Your task to perform on an android device: Open calendar and show me the fourth week of next month Image 0: 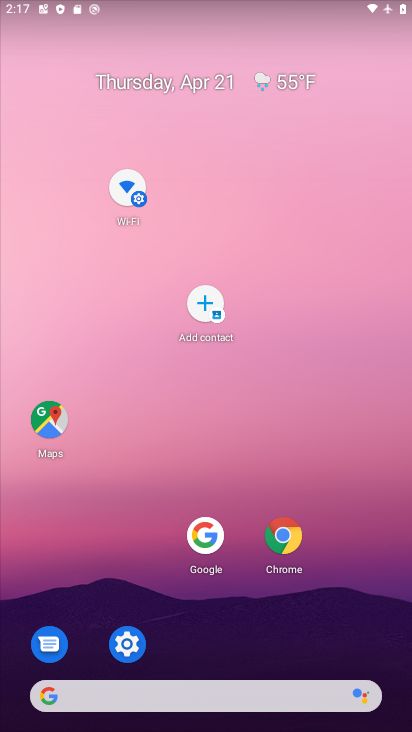
Step 0: drag from (285, 547) to (265, 204)
Your task to perform on an android device: Open calendar and show me the fourth week of next month Image 1: 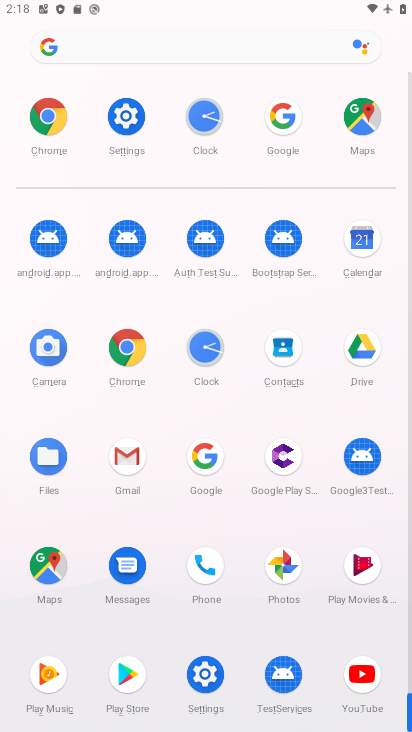
Step 1: click (367, 235)
Your task to perform on an android device: Open calendar and show me the fourth week of next month Image 2: 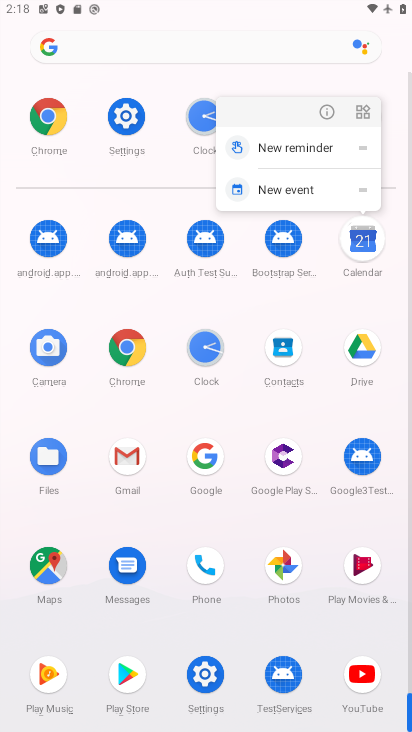
Step 2: click (367, 235)
Your task to perform on an android device: Open calendar and show me the fourth week of next month Image 3: 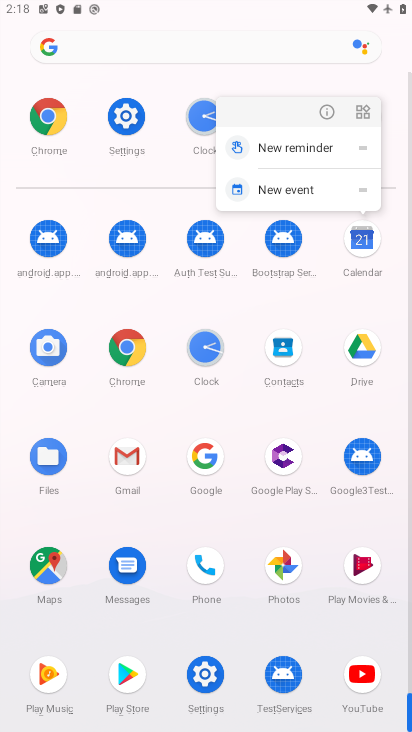
Step 3: click (367, 235)
Your task to perform on an android device: Open calendar and show me the fourth week of next month Image 4: 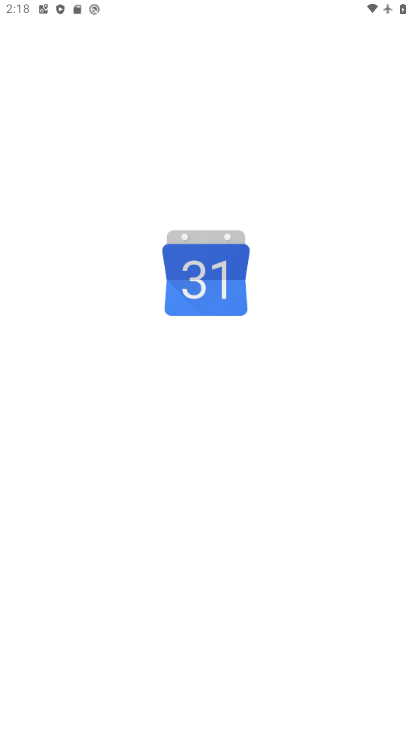
Step 4: click (367, 234)
Your task to perform on an android device: Open calendar and show me the fourth week of next month Image 5: 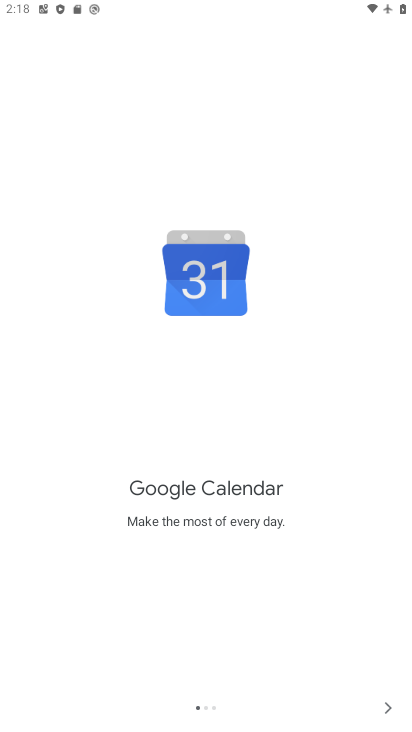
Step 5: click (389, 710)
Your task to perform on an android device: Open calendar and show me the fourth week of next month Image 6: 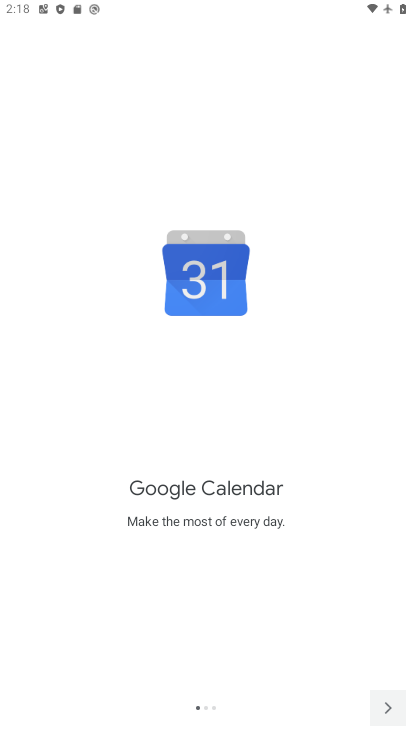
Step 6: click (390, 710)
Your task to perform on an android device: Open calendar and show me the fourth week of next month Image 7: 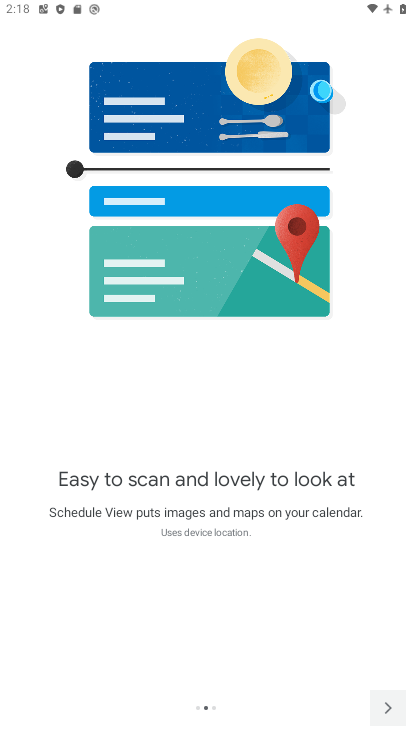
Step 7: click (390, 710)
Your task to perform on an android device: Open calendar and show me the fourth week of next month Image 8: 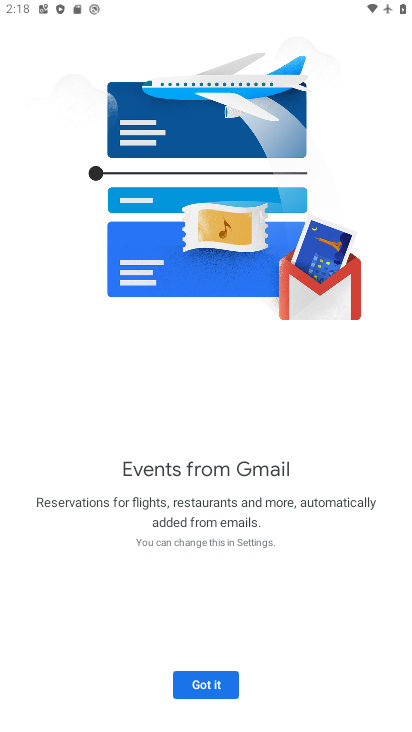
Step 8: click (390, 710)
Your task to perform on an android device: Open calendar and show me the fourth week of next month Image 9: 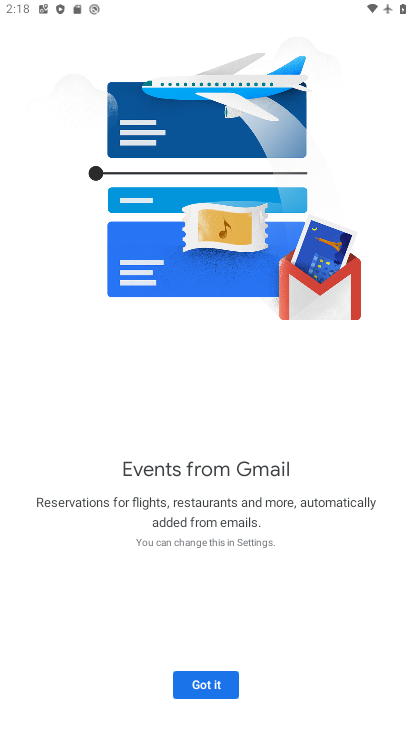
Step 9: click (215, 683)
Your task to perform on an android device: Open calendar and show me the fourth week of next month Image 10: 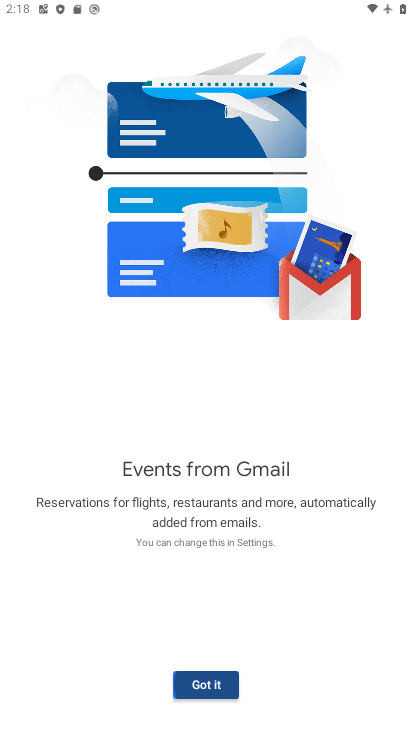
Step 10: click (214, 684)
Your task to perform on an android device: Open calendar and show me the fourth week of next month Image 11: 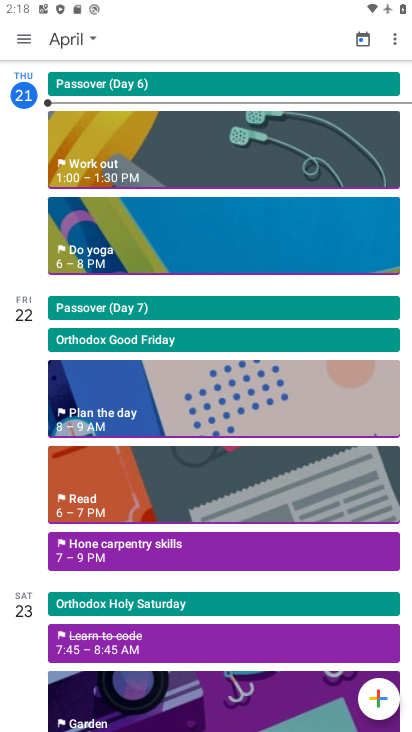
Step 11: click (90, 36)
Your task to perform on an android device: Open calendar and show me the fourth week of next month Image 12: 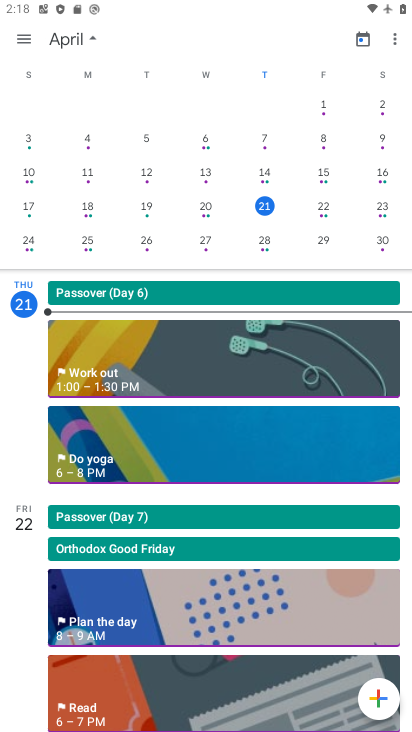
Step 12: click (25, 164)
Your task to perform on an android device: Open calendar and show me the fourth week of next month Image 13: 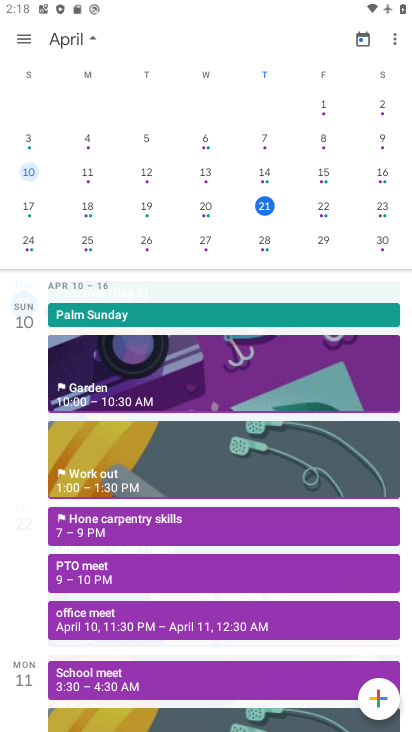
Step 13: drag from (82, 203) to (23, 191)
Your task to perform on an android device: Open calendar and show me the fourth week of next month Image 14: 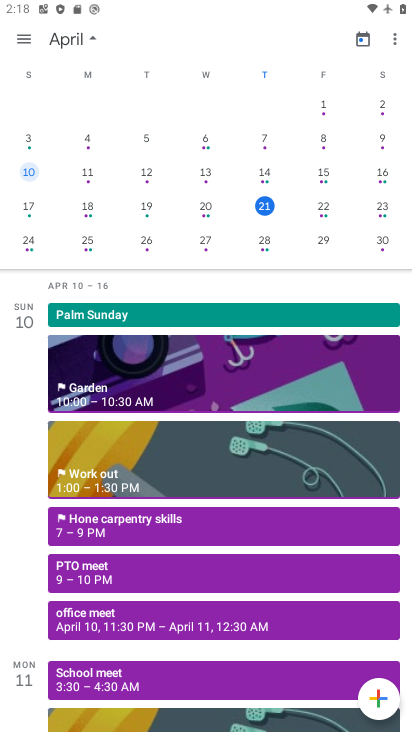
Step 14: drag from (275, 198) to (106, 182)
Your task to perform on an android device: Open calendar and show me the fourth week of next month Image 15: 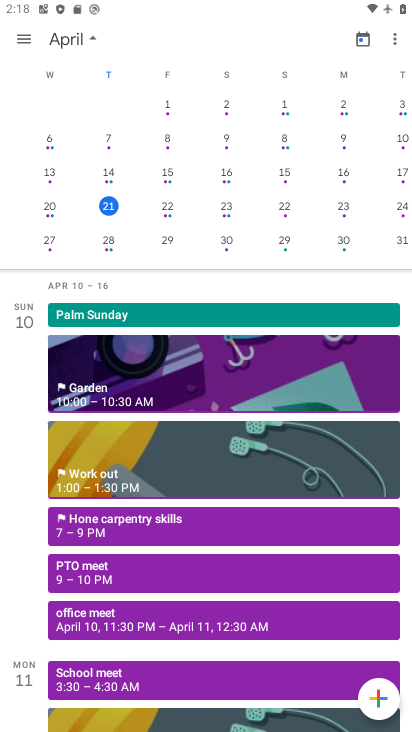
Step 15: drag from (186, 177) to (0, 152)
Your task to perform on an android device: Open calendar and show me the fourth week of next month Image 16: 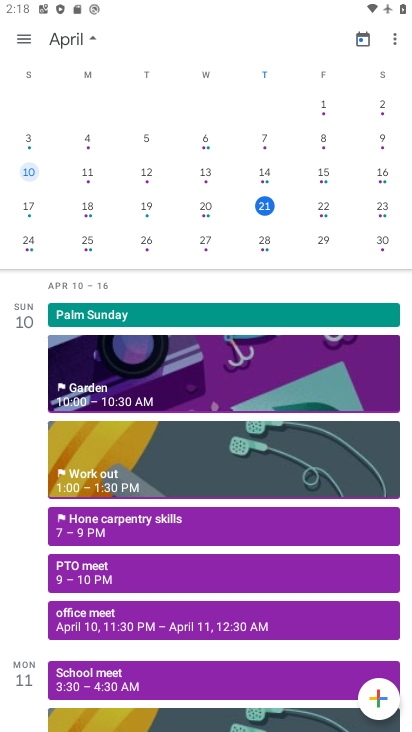
Step 16: drag from (279, 185) to (31, 166)
Your task to perform on an android device: Open calendar and show me the fourth week of next month Image 17: 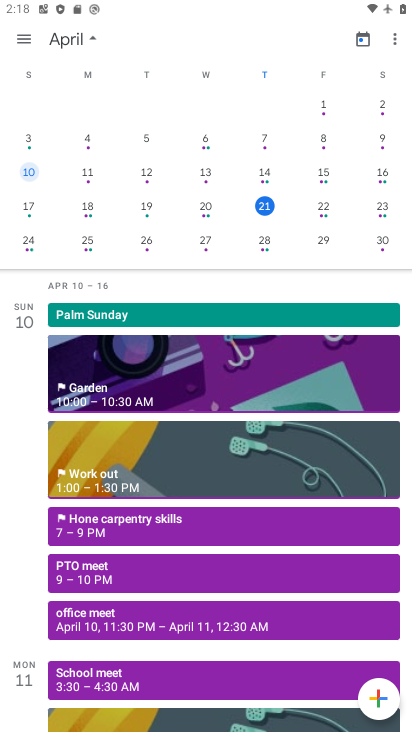
Step 17: drag from (86, 150) to (16, 124)
Your task to perform on an android device: Open calendar and show me the fourth week of next month Image 18: 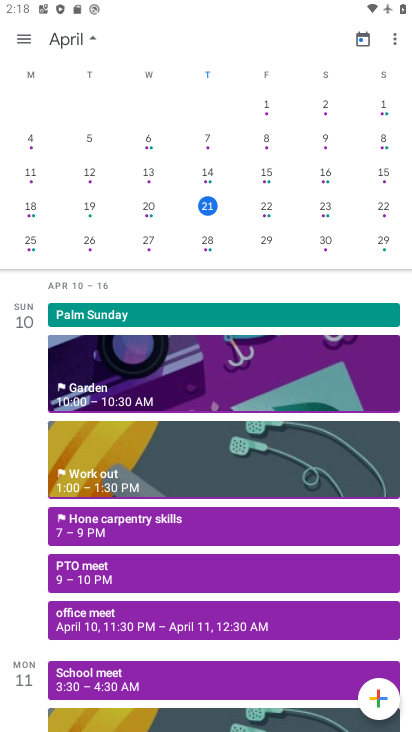
Step 18: drag from (287, 173) to (77, 148)
Your task to perform on an android device: Open calendar and show me the fourth week of next month Image 19: 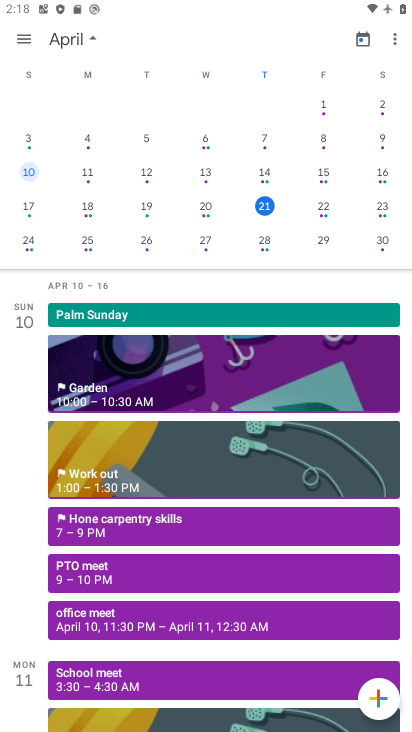
Step 19: drag from (212, 175) to (72, 171)
Your task to perform on an android device: Open calendar and show me the fourth week of next month Image 20: 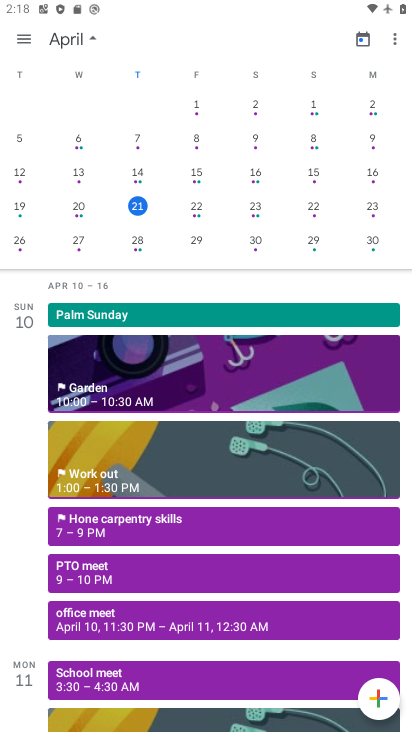
Step 20: drag from (276, 216) to (105, 190)
Your task to perform on an android device: Open calendar and show me the fourth week of next month Image 21: 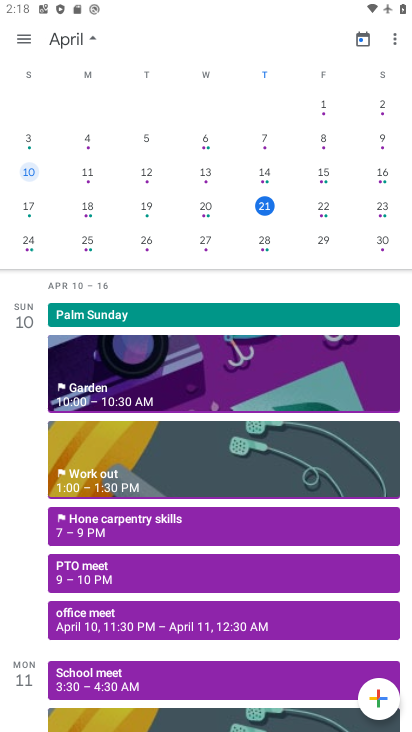
Step 21: drag from (282, 196) to (53, 142)
Your task to perform on an android device: Open calendar and show me the fourth week of next month Image 22: 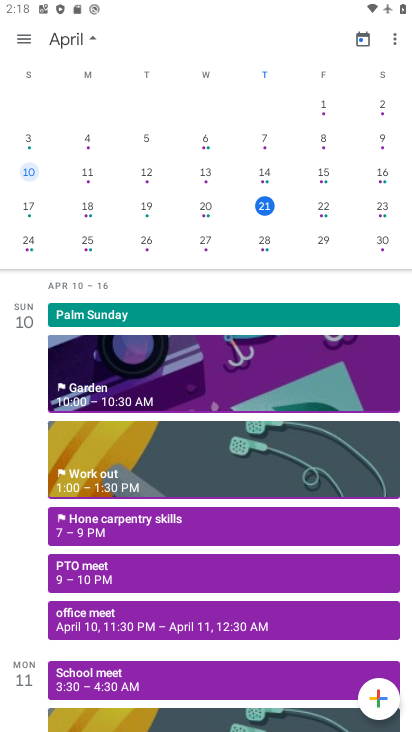
Step 22: drag from (242, 192) to (31, 222)
Your task to perform on an android device: Open calendar and show me the fourth week of next month Image 23: 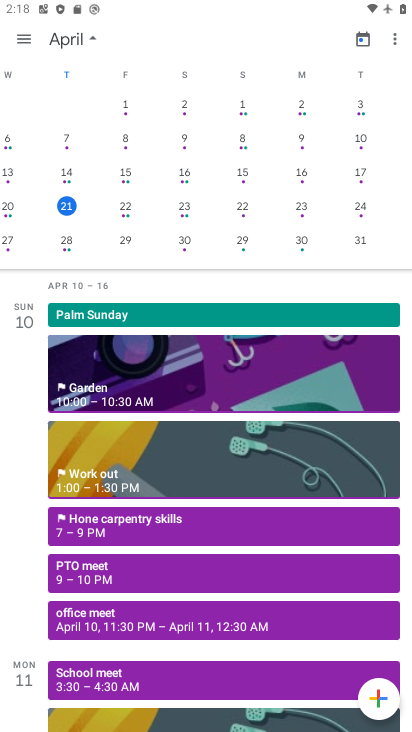
Step 23: drag from (264, 213) to (88, 176)
Your task to perform on an android device: Open calendar and show me the fourth week of next month Image 24: 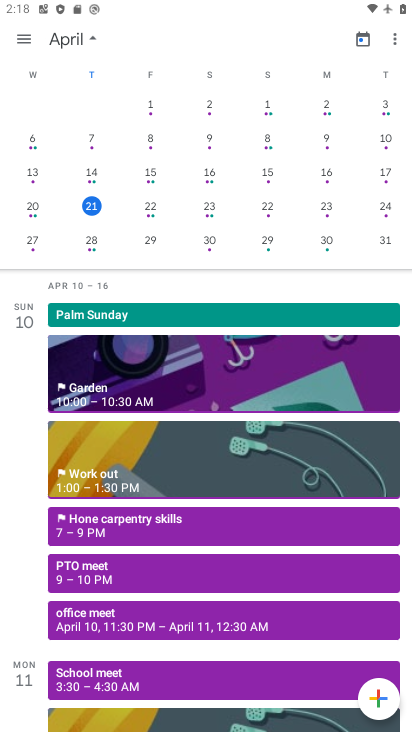
Step 24: drag from (259, 176) to (55, 201)
Your task to perform on an android device: Open calendar and show me the fourth week of next month Image 25: 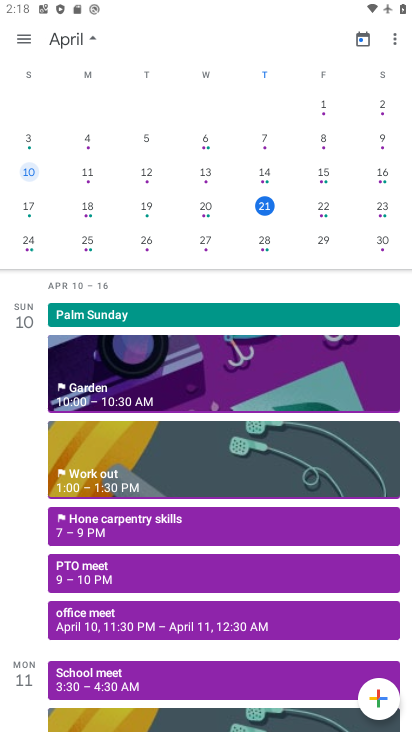
Step 25: drag from (257, 214) to (9, 178)
Your task to perform on an android device: Open calendar and show me the fourth week of next month Image 26: 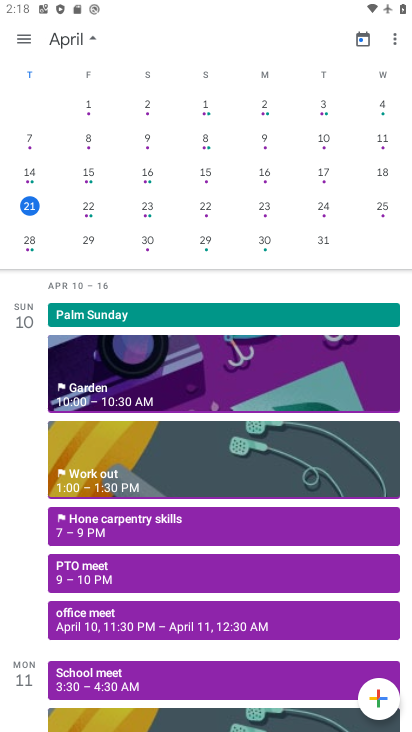
Step 26: click (20, 167)
Your task to perform on an android device: Open calendar and show me the fourth week of next month Image 27: 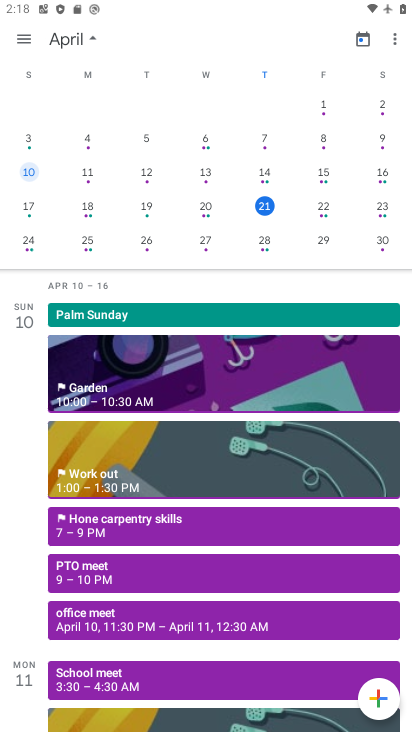
Step 27: drag from (78, 187) to (5, 194)
Your task to perform on an android device: Open calendar and show me the fourth week of next month Image 28: 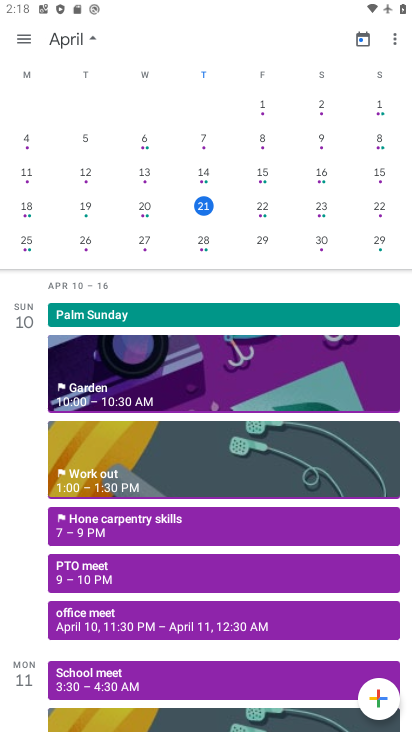
Step 28: click (32, 190)
Your task to perform on an android device: Open calendar and show me the fourth week of next month Image 29: 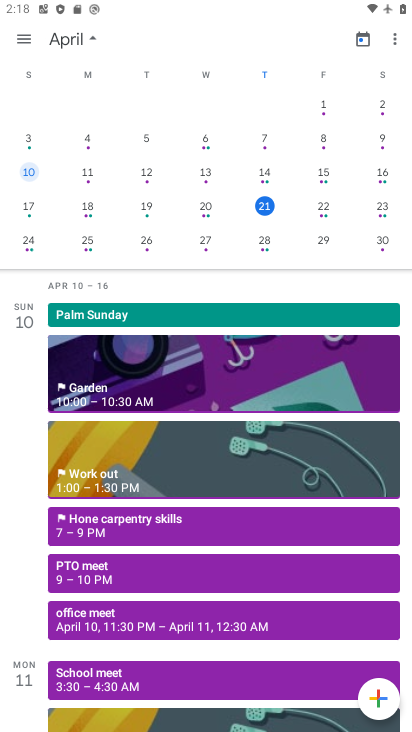
Step 29: drag from (348, 178) to (62, 171)
Your task to perform on an android device: Open calendar and show me the fourth week of next month Image 30: 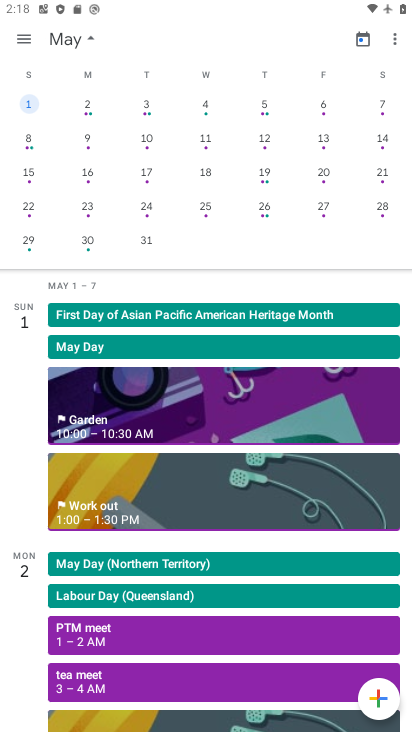
Step 30: drag from (282, 202) to (73, 182)
Your task to perform on an android device: Open calendar and show me the fourth week of next month Image 31: 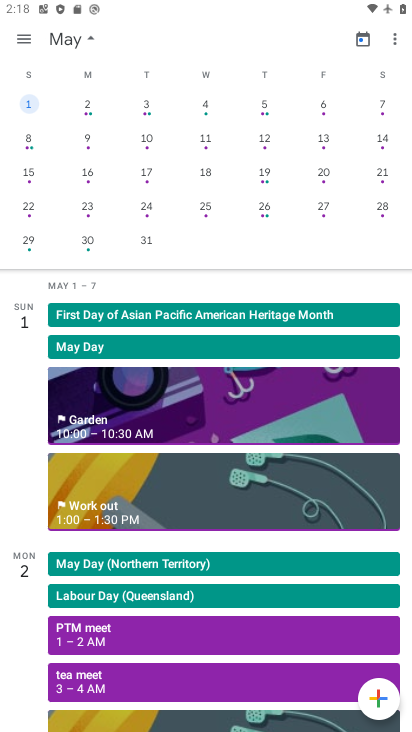
Step 31: click (86, 207)
Your task to perform on an android device: Open calendar and show me the fourth week of next month Image 32: 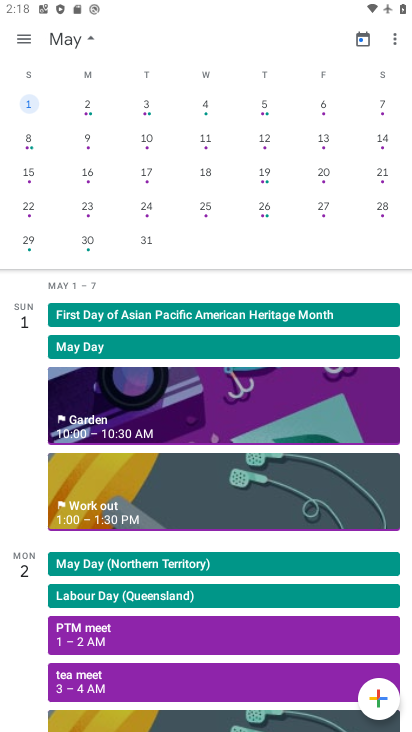
Step 32: click (86, 207)
Your task to perform on an android device: Open calendar and show me the fourth week of next month Image 33: 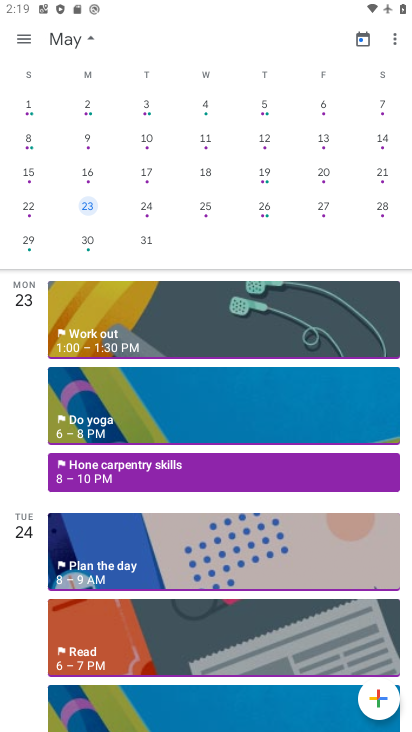
Step 33: task complete